Your task to perform on an android device: Open settings on Google Maps Image 0: 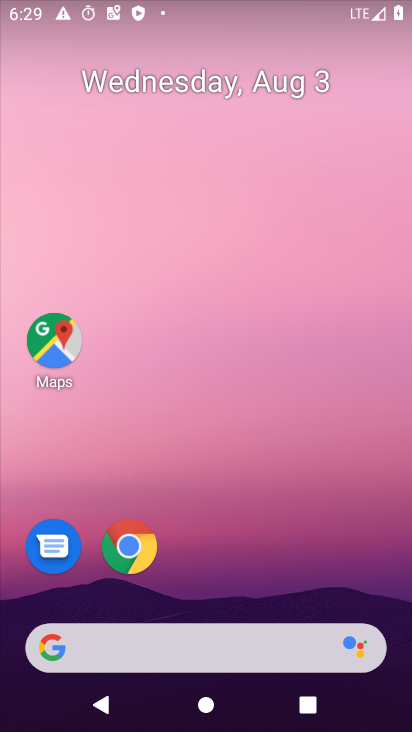
Step 0: press home button
Your task to perform on an android device: Open settings on Google Maps Image 1: 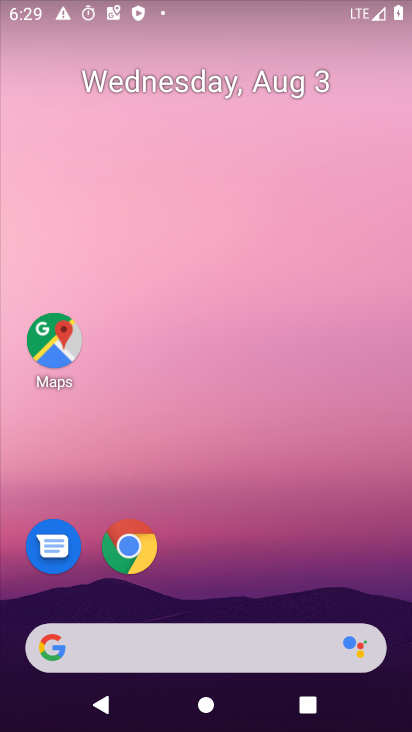
Step 1: click (57, 353)
Your task to perform on an android device: Open settings on Google Maps Image 2: 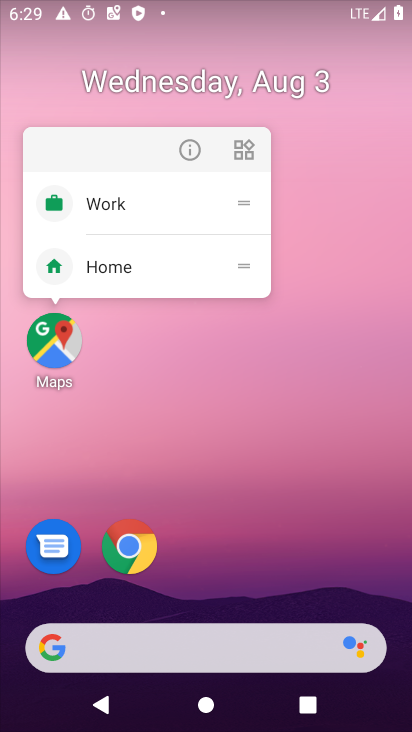
Step 2: click (57, 353)
Your task to perform on an android device: Open settings on Google Maps Image 3: 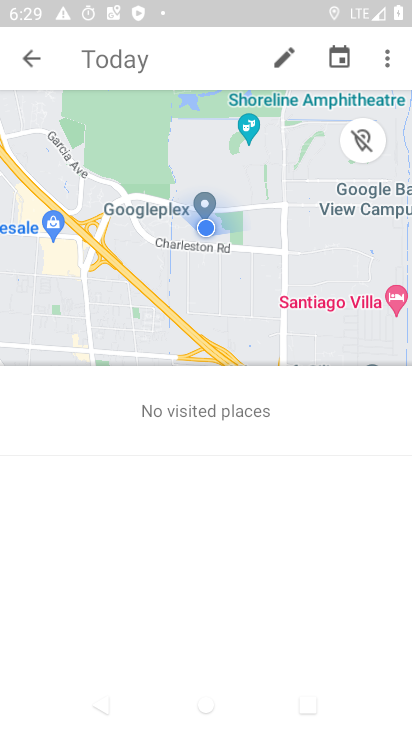
Step 3: click (27, 51)
Your task to perform on an android device: Open settings on Google Maps Image 4: 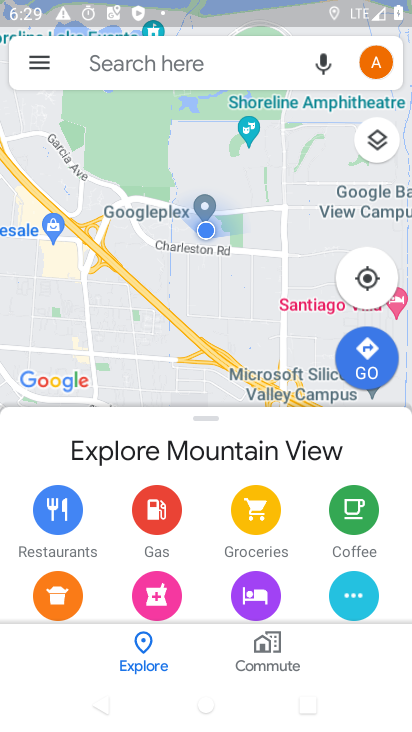
Step 4: click (43, 59)
Your task to perform on an android device: Open settings on Google Maps Image 5: 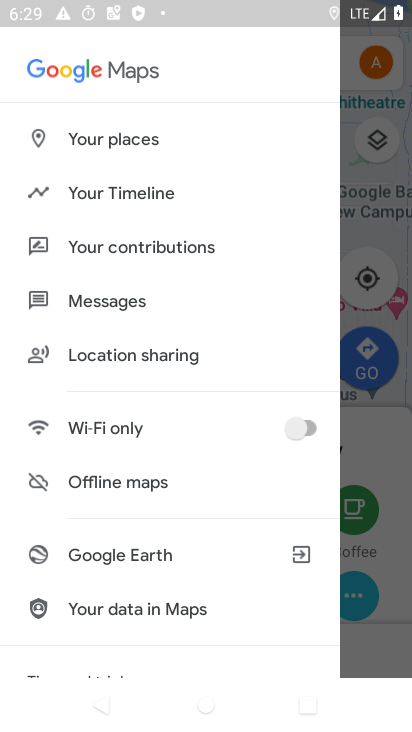
Step 5: drag from (244, 523) to (255, 64)
Your task to perform on an android device: Open settings on Google Maps Image 6: 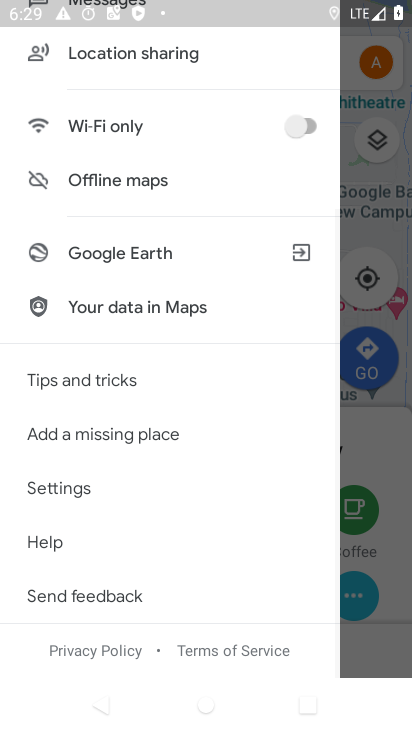
Step 6: click (54, 489)
Your task to perform on an android device: Open settings on Google Maps Image 7: 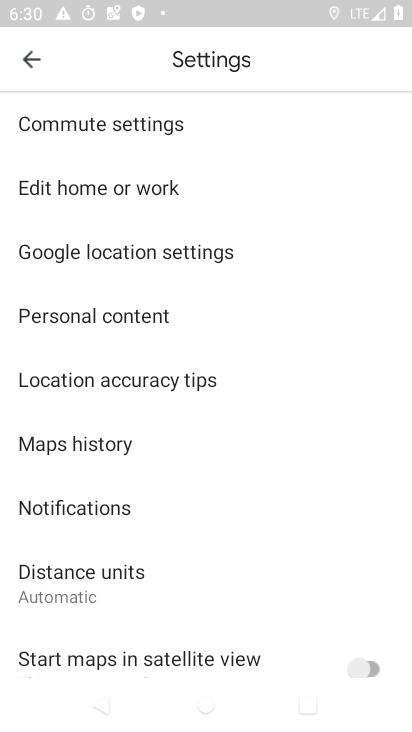
Step 7: task complete